Your task to perform on an android device: delete location history Image 0: 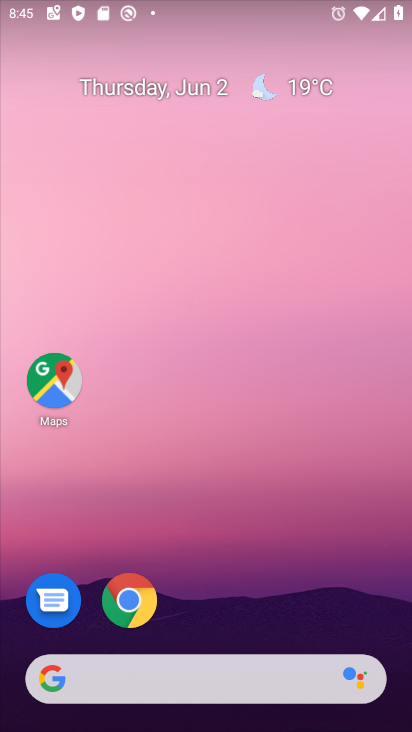
Step 0: drag from (368, 621) to (372, 256)
Your task to perform on an android device: delete location history Image 1: 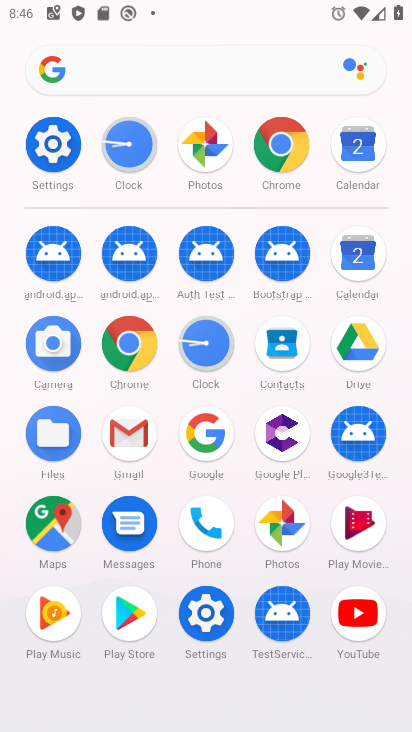
Step 1: click (53, 524)
Your task to perform on an android device: delete location history Image 2: 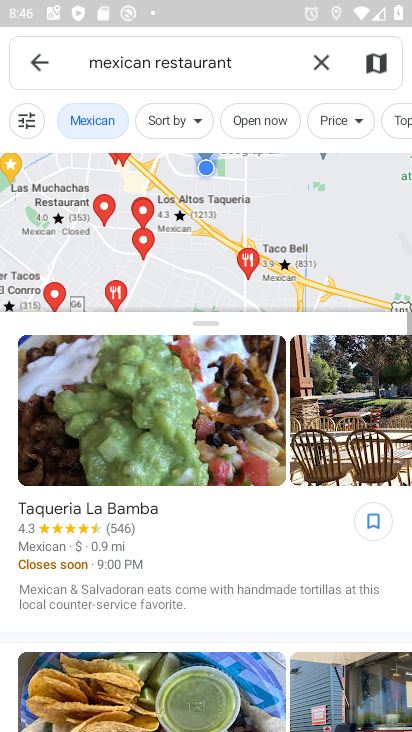
Step 2: press back button
Your task to perform on an android device: delete location history Image 3: 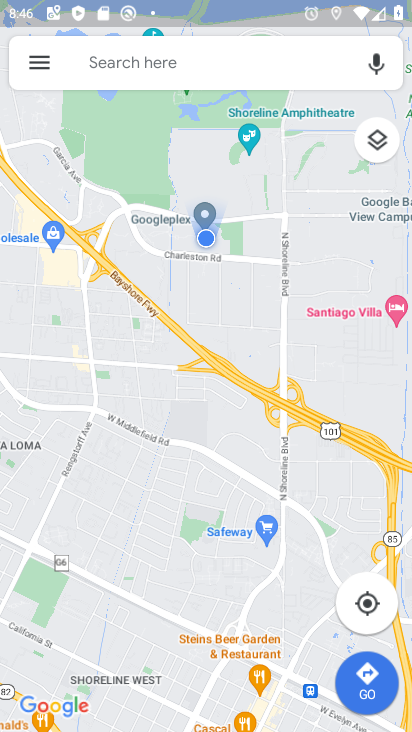
Step 3: click (44, 68)
Your task to perform on an android device: delete location history Image 4: 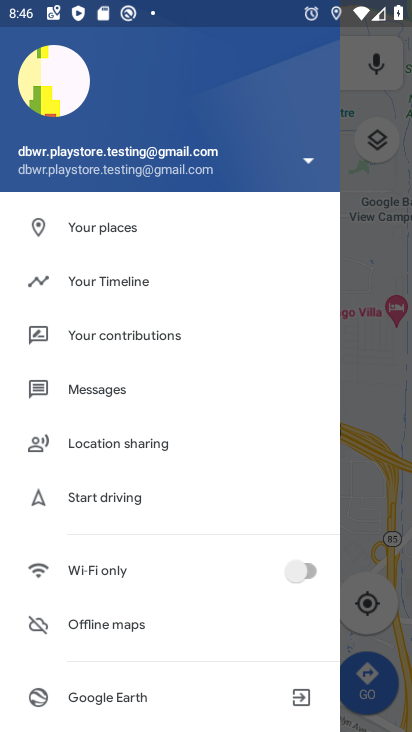
Step 4: click (133, 293)
Your task to perform on an android device: delete location history Image 5: 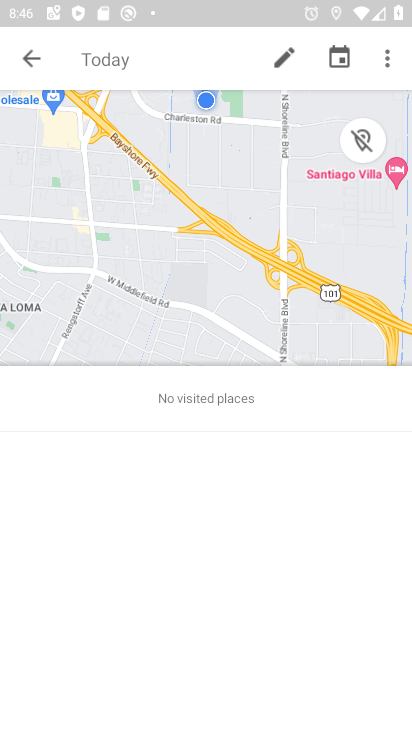
Step 5: click (387, 66)
Your task to perform on an android device: delete location history Image 6: 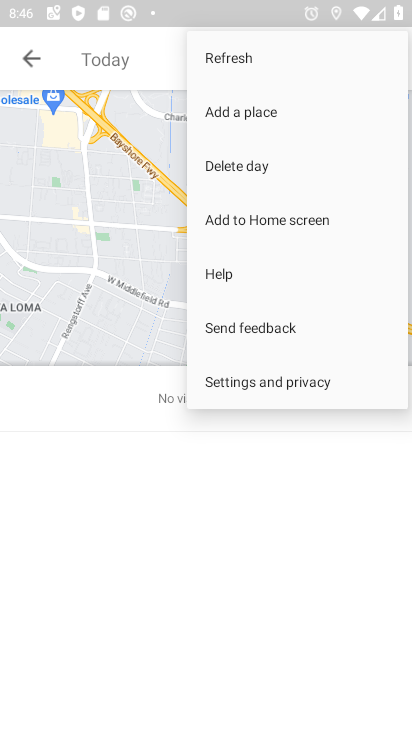
Step 6: click (327, 387)
Your task to perform on an android device: delete location history Image 7: 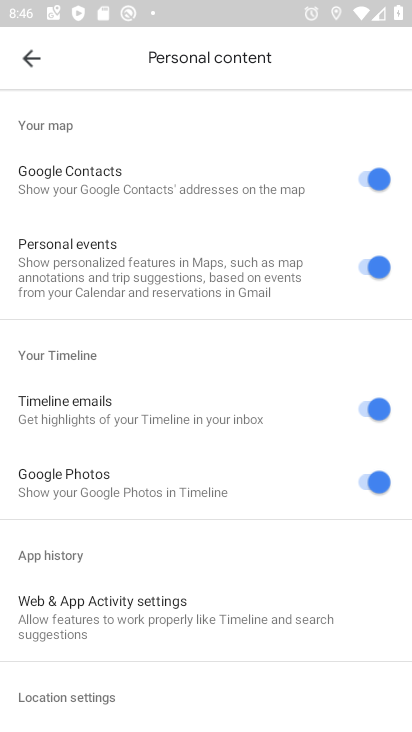
Step 7: drag from (315, 555) to (327, 434)
Your task to perform on an android device: delete location history Image 8: 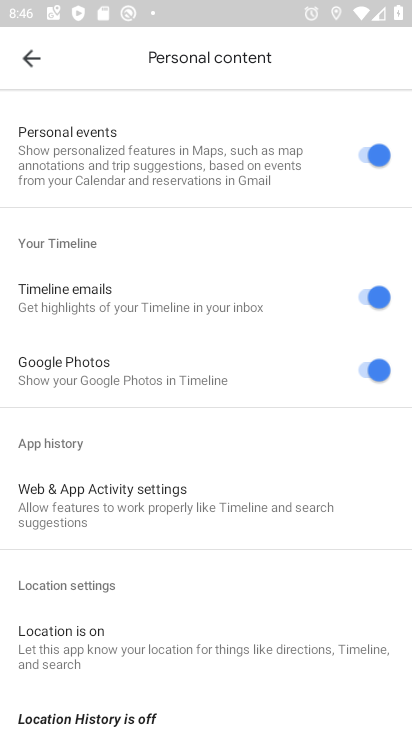
Step 8: drag from (280, 586) to (293, 401)
Your task to perform on an android device: delete location history Image 9: 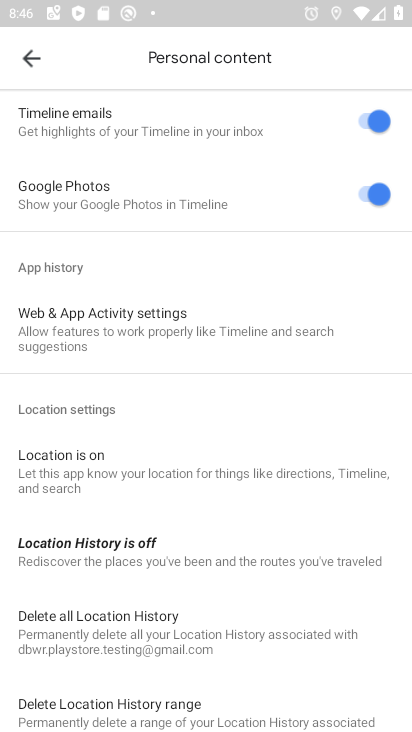
Step 9: drag from (285, 513) to (284, 362)
Your task to perform on an android device: delete location history Image 10: 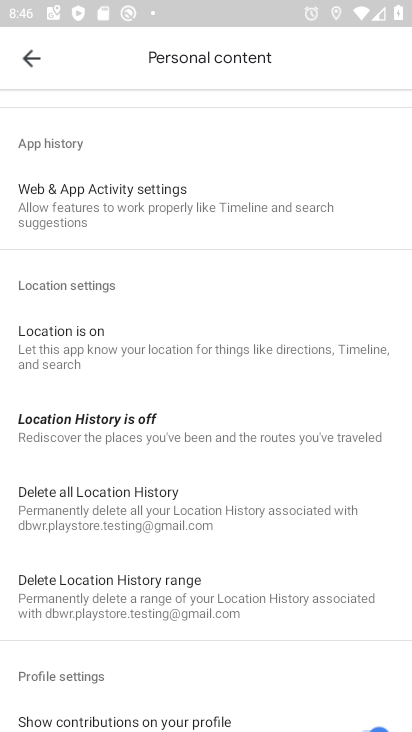
Step 10: drag from (281, 620) to (292, 324)
Your task to perform on an android device: delete location history Image 11: 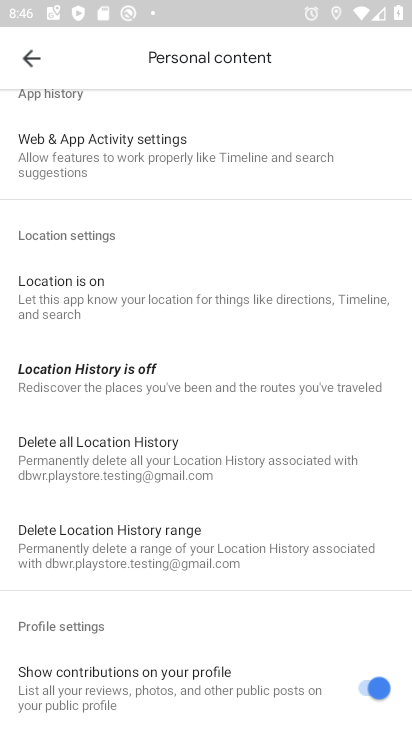
Step 11: drag from (296, 565) to (299, 402)
Your task to perform on an android device: delete location history Image 12: 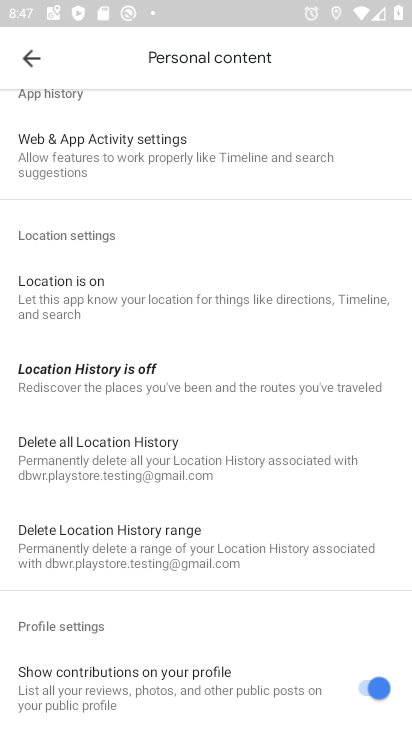
Step 12: click (230, 458)
Your task to perform on an android device: delete location history Image 13: 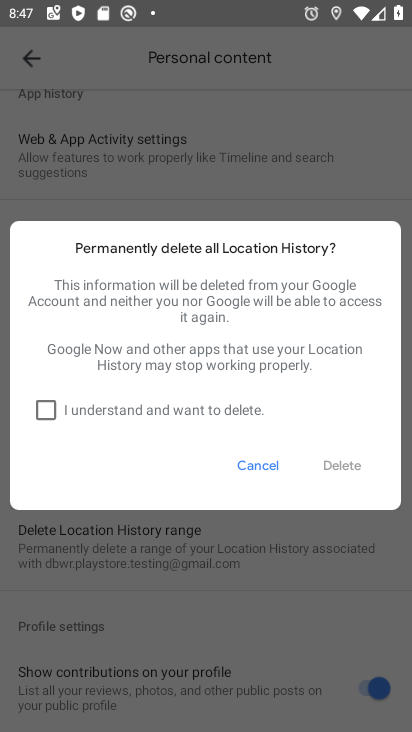
Step 13: click (47, 408)
Your task to perform on an android device: delete location history Image 14: 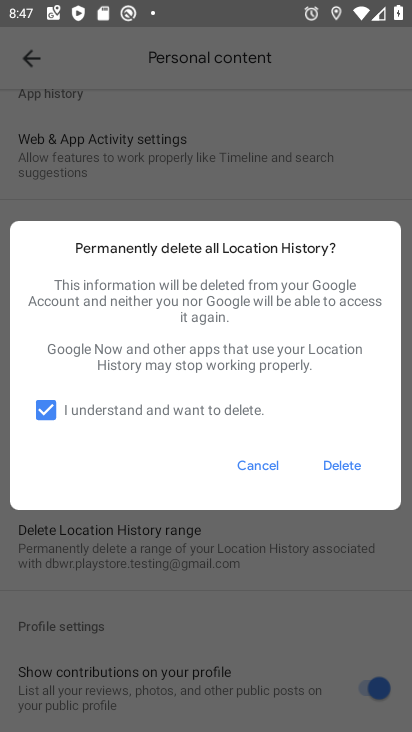
Step 14: click (356, 469)
Your task to perform on an android device: delete location history Image 15: 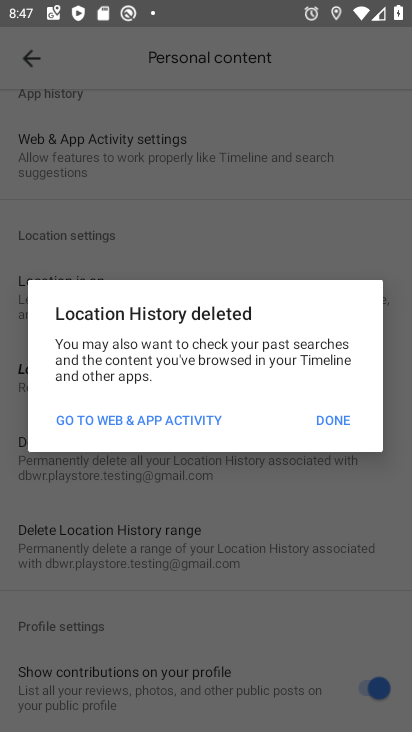
Step 15: click (336, 427)
Your task to perform on an android device: delete location history Image 16: 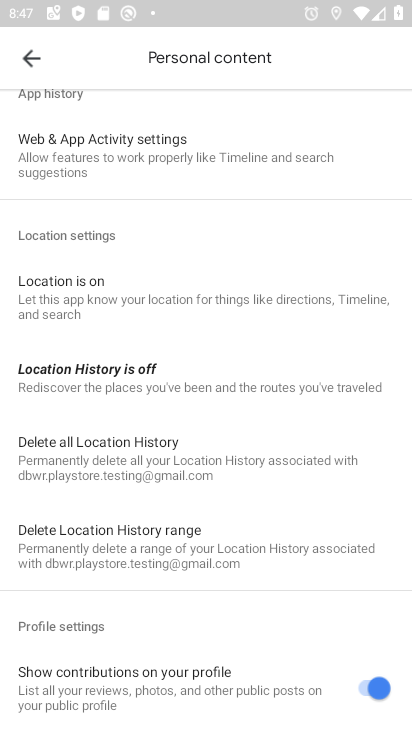
Step 16: task complete